Your task to perform on an android device: turn pop-ups off in chrome Image 0: 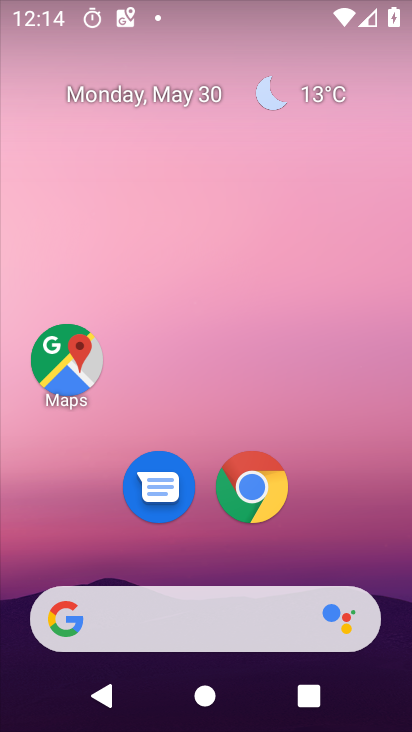
Step 0: click (258, 489)
Your task to perform on an android device: turn pop-ups off in chrome Image 1: 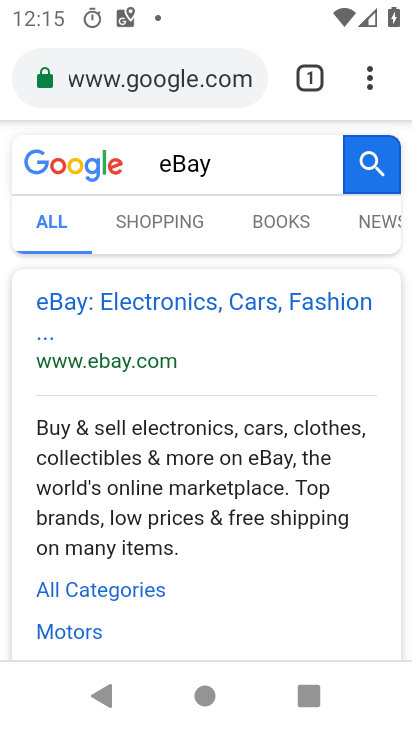
Step 1: click (364, 73)
Your task to perform on an android device: turn pop-ups off in chrome Image 2: 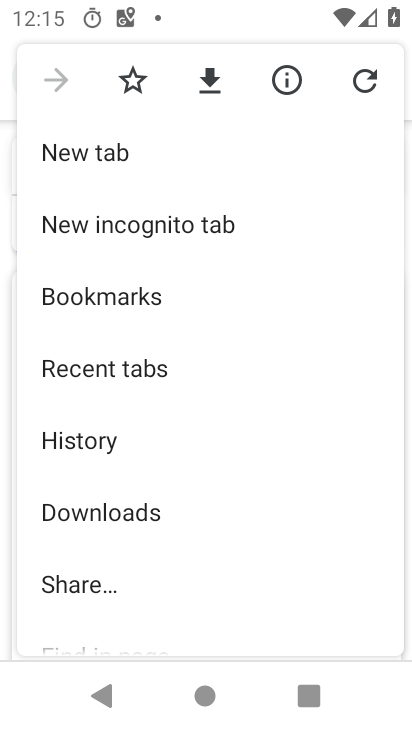
Step 2: drag from (247, 576) to (240, 295)
Your task to perform on an android device: turn pop-ups off in chrome Image 3: 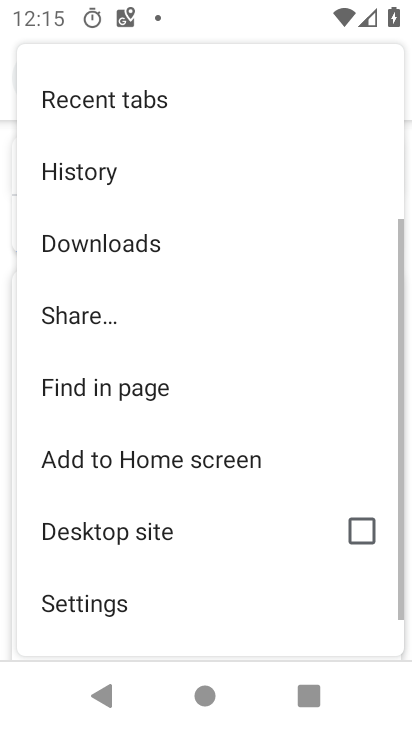
Step 3: click (92, 594)
Your task to perform on an android device: turn pop-ups off in chrome Image 4: 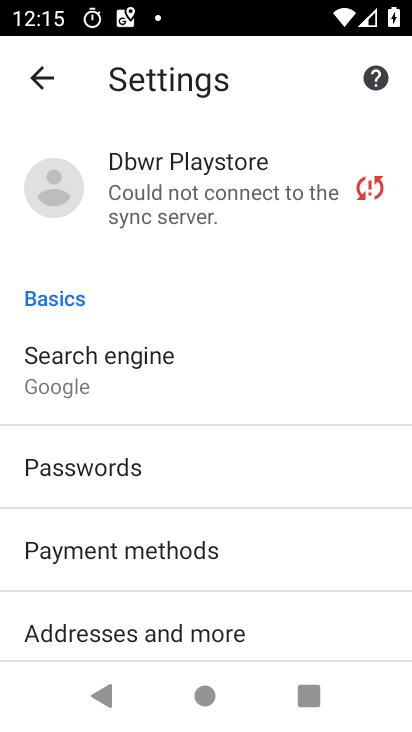
Step 4: drag from (290, 643) to (265, 318)
Your task to perform on an android device: turn pop-ups off in chrome Image 5: 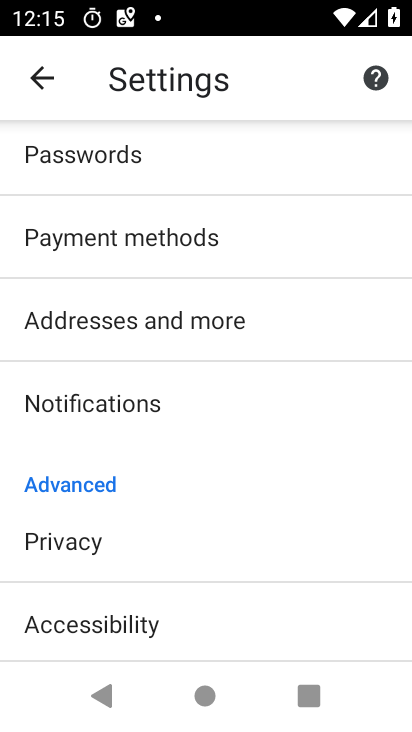
Step 5: drag from (254, 503) to (244, 412)
Your task to perform on an android device: turn pop-ups off in chrome Image 6: 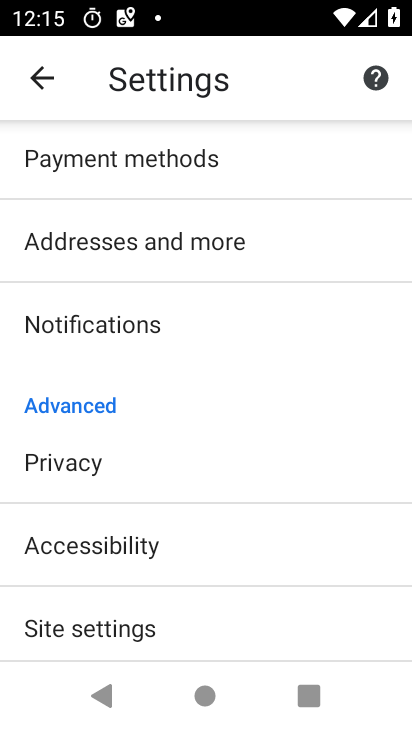
Step 6: click (108, 631)
Your task to perform on an android device: turn pop-ups off in chrome Image 7: 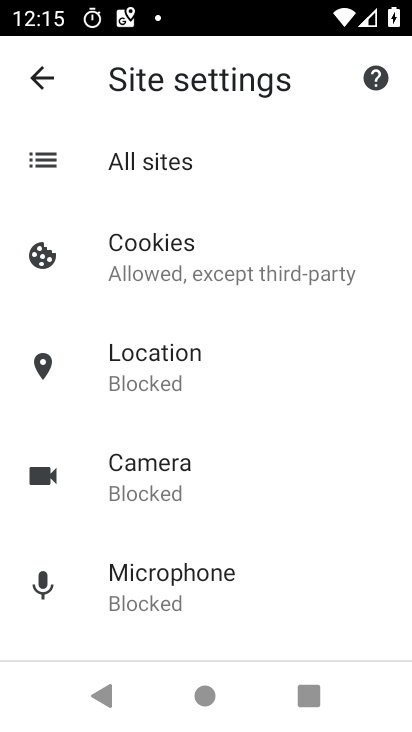
Step 7: drag from (302, 538) to (305, 250)
Your task to perform on an android device: turn pop-ups off in chrome Image 8: 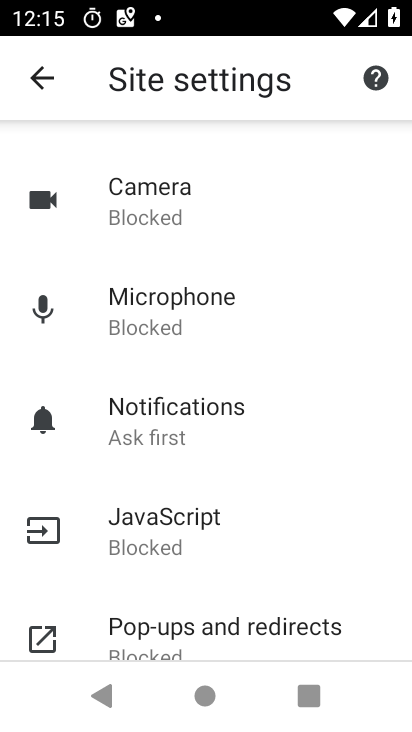
Step 8: click (162, 635)
Your task to perform on an android device: turn pop-ups off in chrome Image 9: 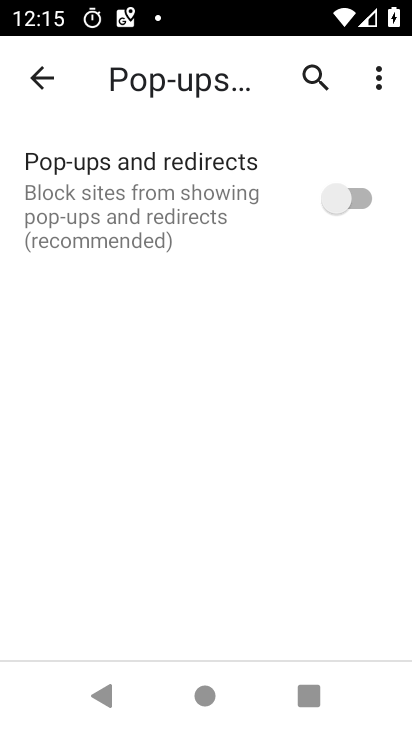
Step 9: task complete